Your task to perform on an android device: refresh tabs in the chrome app Image 0: 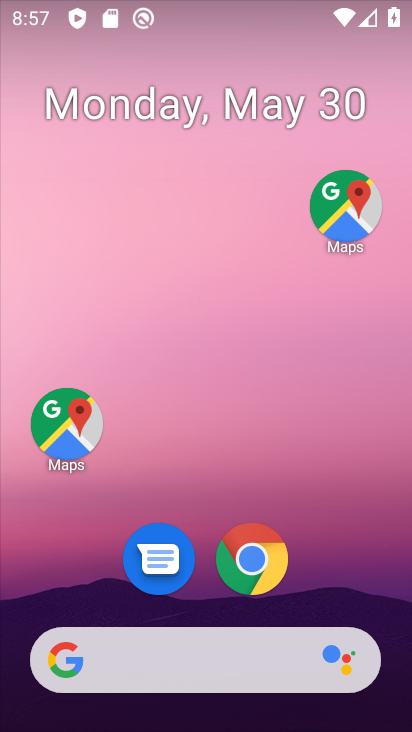
Step 0: click (263, 559)
Your task to perform on an android device: refresh tabs in the chrome app Image 1: 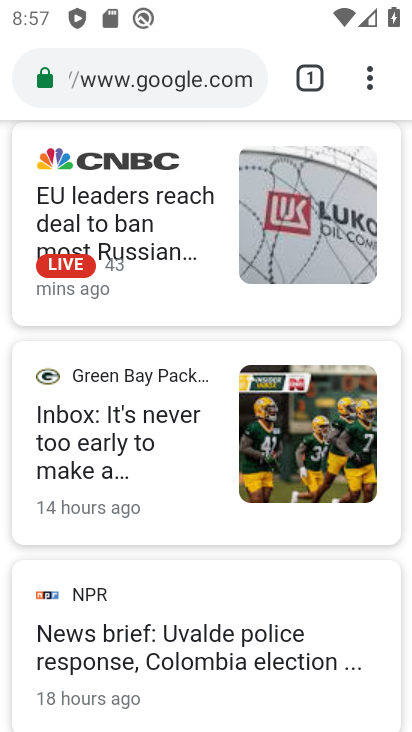
Step 1: click (372, 83)
Your task to perform on an android device: refresh tabs in the chrome app Image 2: 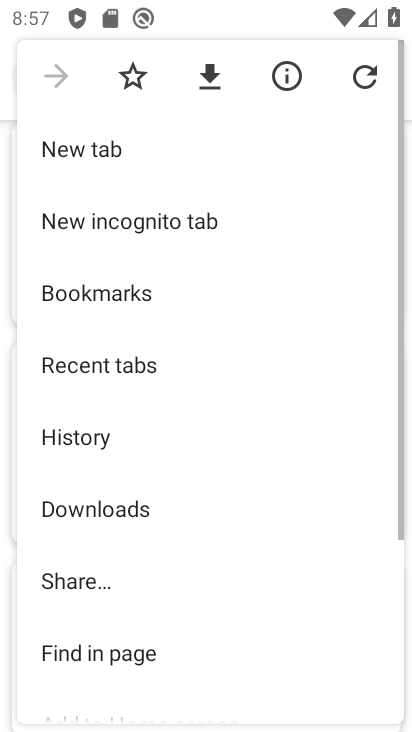
Step 2: click (372, 83)
Your task to perform on an android device: refresh tabs in the chrome app Image 3: 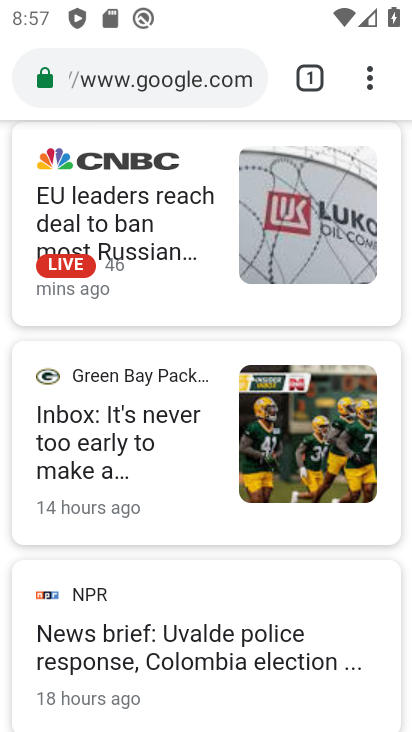
Step 3: task complete